Your task to perform on an android device: Do I have any events tomorrow? Image 0: 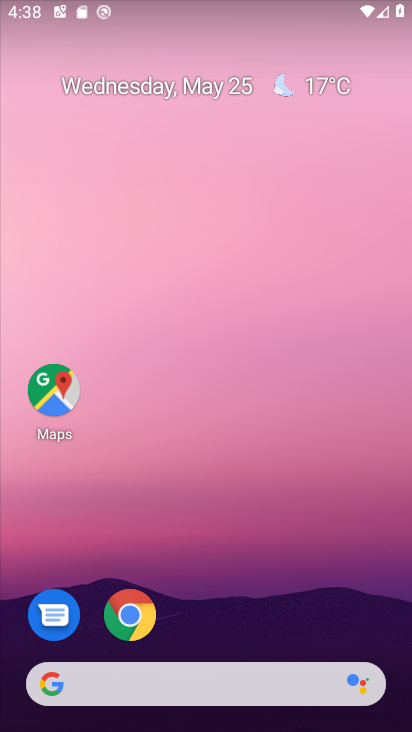
Step 0: press home button
Your task to perform on an android device: Do I have any events tomorrow? Image 1: 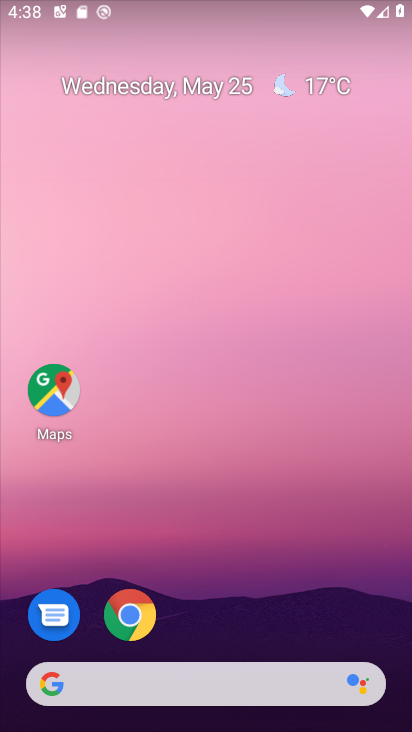
Step 1: click (158, 84)
Your task to perform on an android device: Do I have any events tomorrow? Image 2: 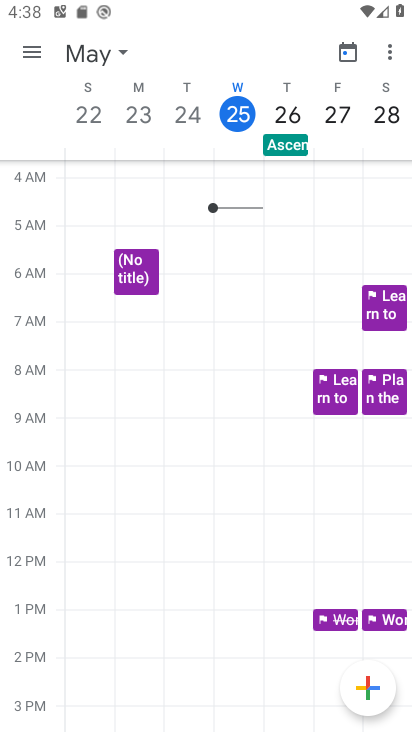
Step 2: task complete